Your task to perform on an android device: Show me popular videos on Youtube Image 0: 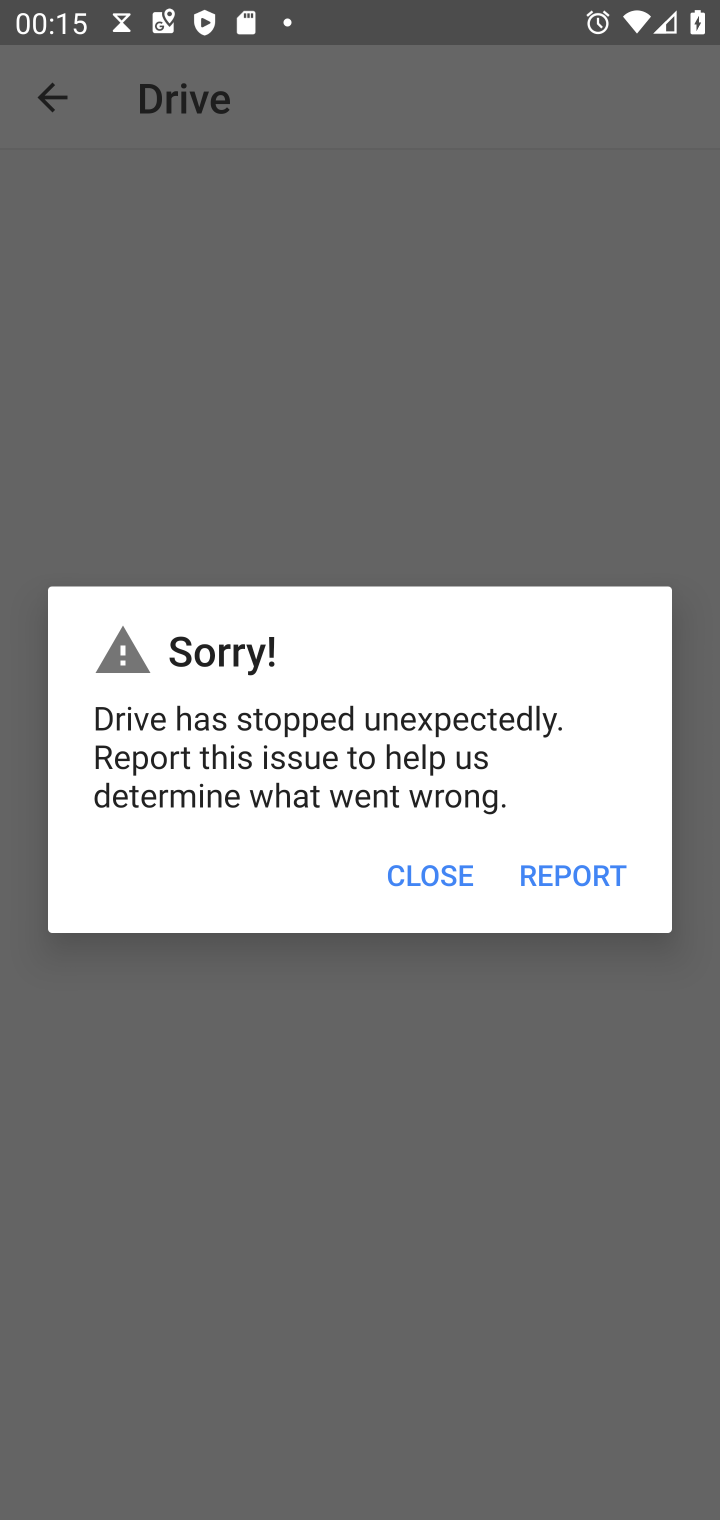
Step 0: press home button
Your task to perform on an android device: Show me popular videos on Youtube Image 1: 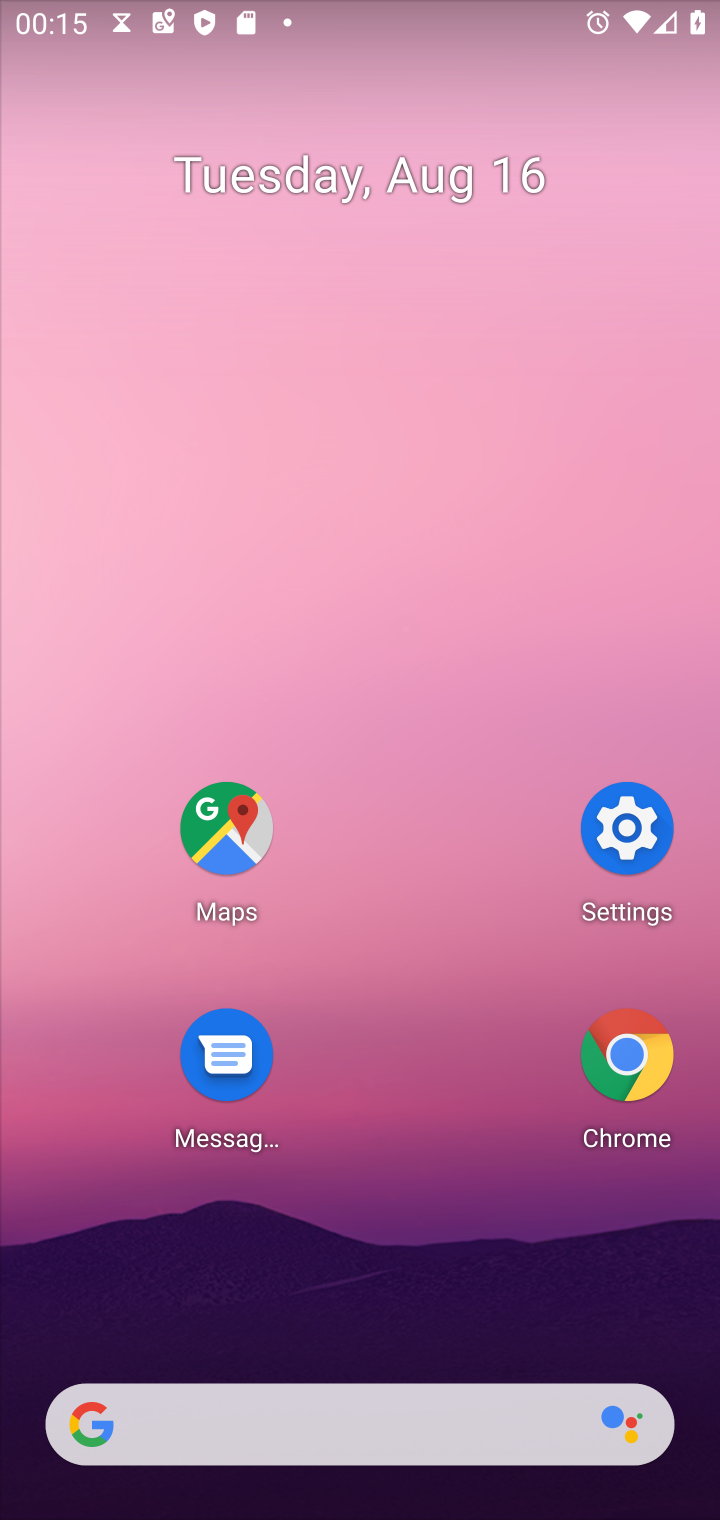
Step 1: drag from (408, 1423) to (544, 99)
Your task to perform on an android device: Show me popular videos on Youtube Image 2: 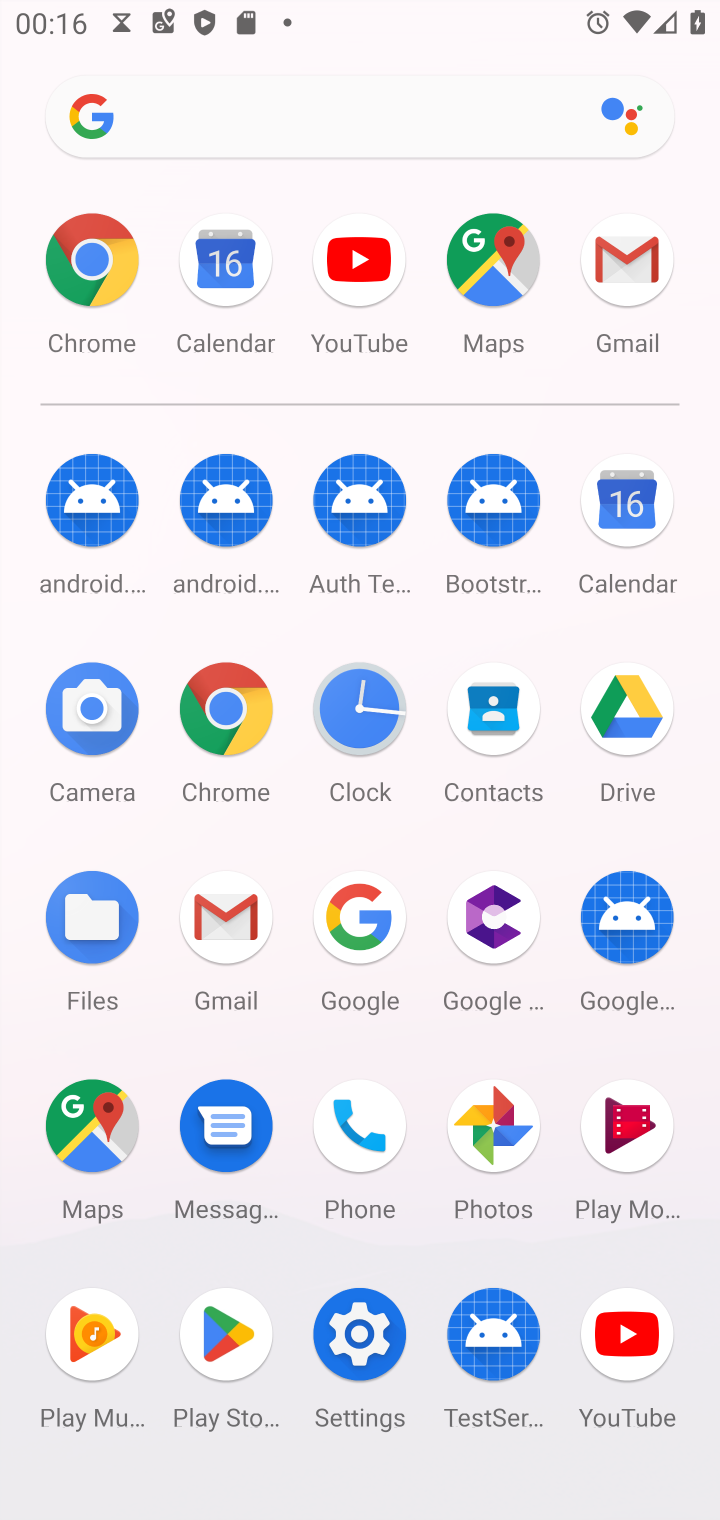
Step 2: click (635, 1334)
Your task to perform on an android device: Show me popular videos on Youtube Image 3: 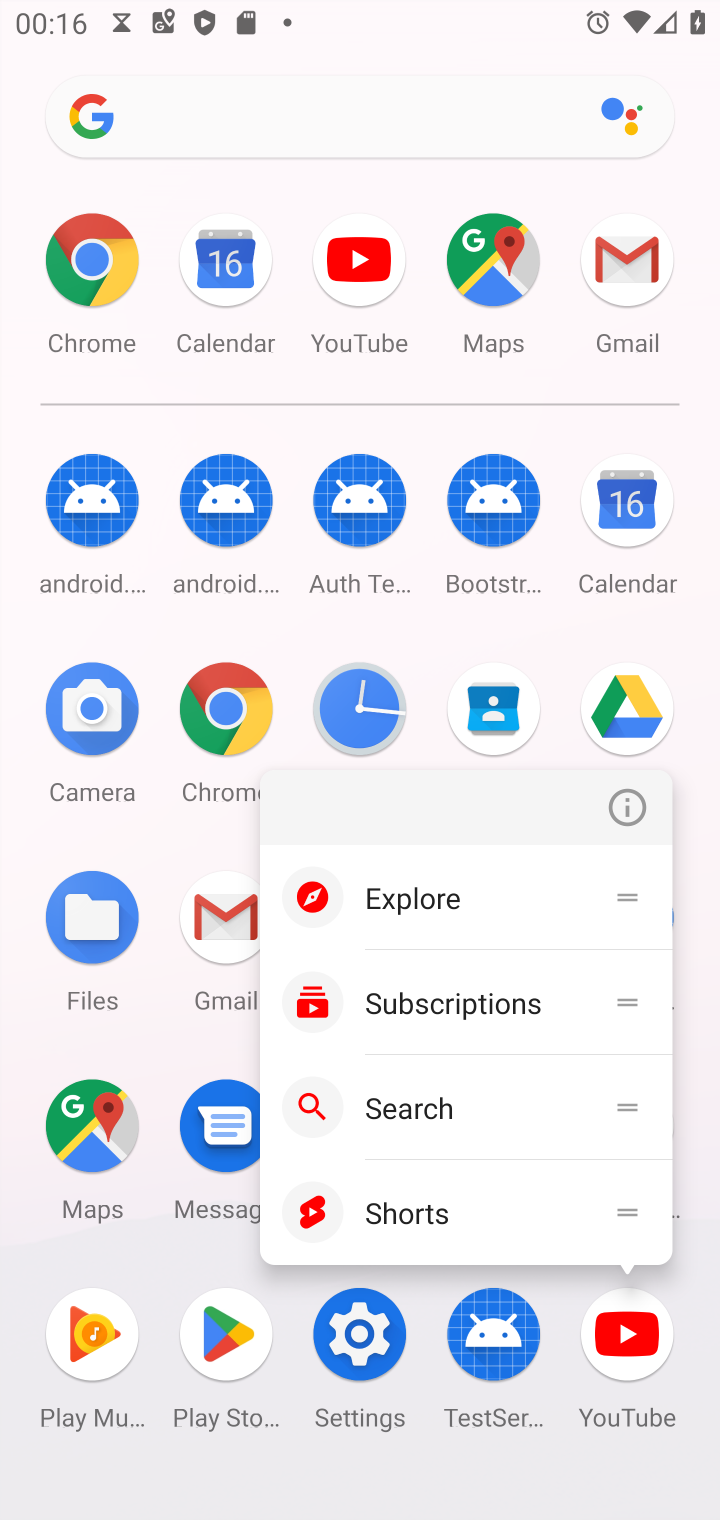
Step 3: click (635, 1332)
Your task to perform on an android device: Show me popular videos on Youtube Image 4: 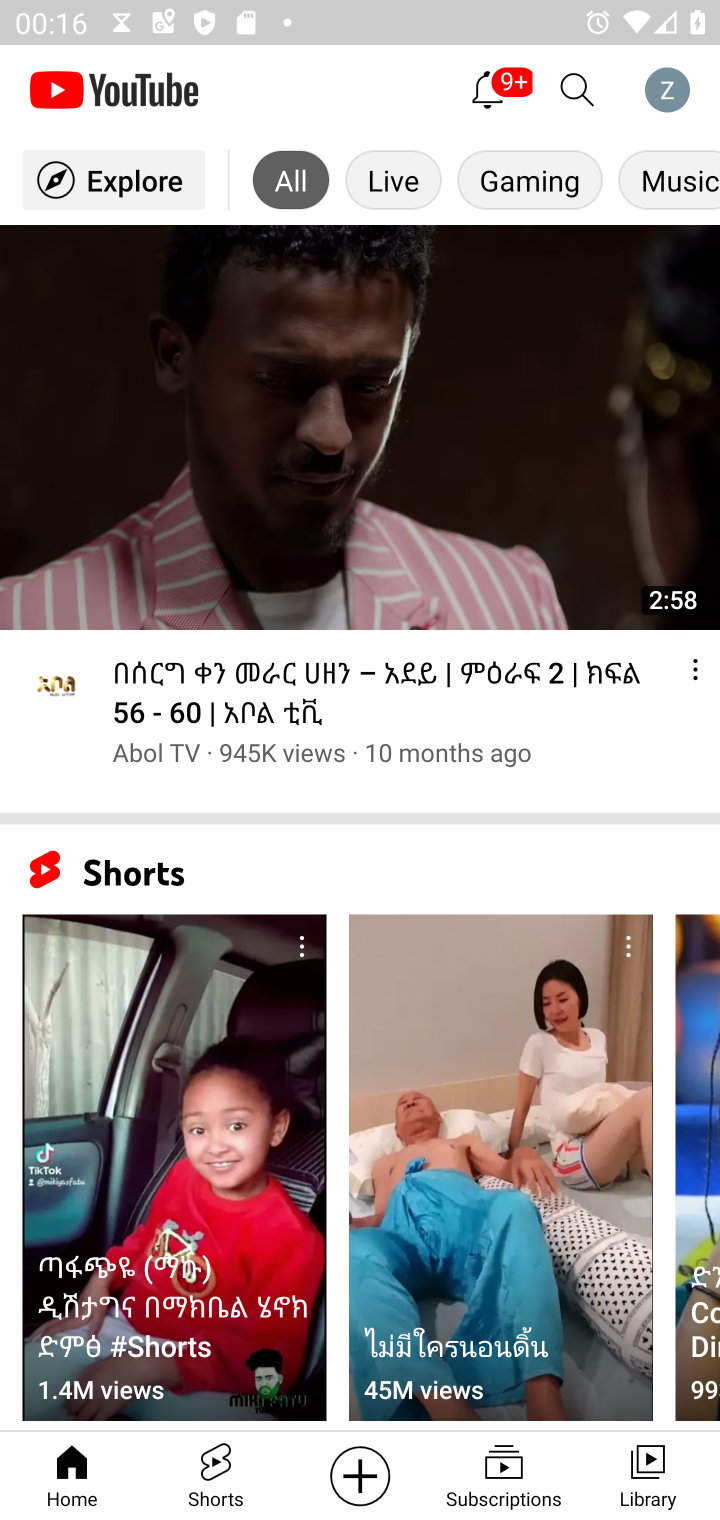
Step 4: task complete